Your task to perform on an android device: turn off wifi Image 0: 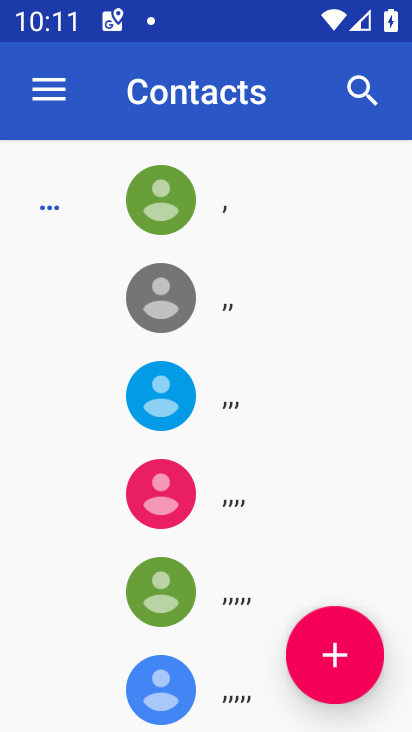
Step 0: press home button
Your task to perform on an android device: turn off wifi Image 1: 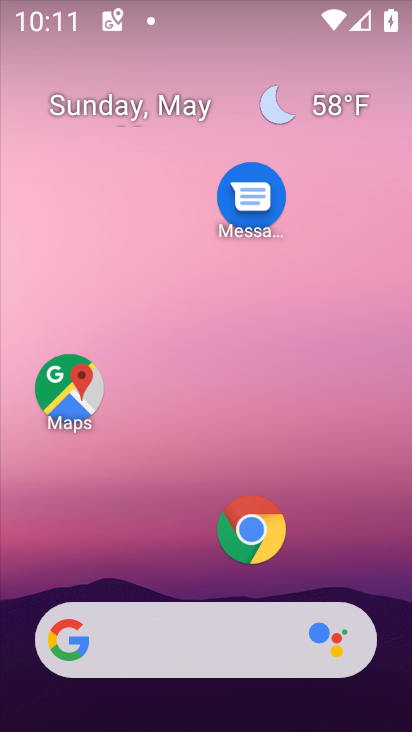
Step 1: drag from (175, 557) to (214, 138)
Your task to perform on an android device: turn off wifi Image 2: 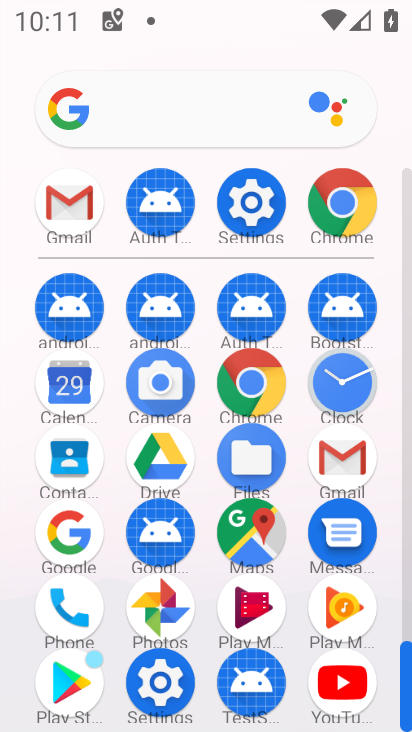
Step 2: click (260, 217)
Your task to perform on an android device: turn off wifi Image 3: 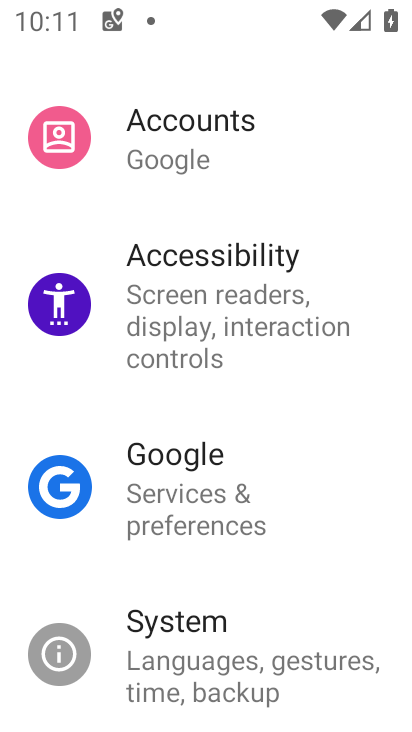
Step 3: drag from (232, 185) to (216, 653)
Your task to perform on an android device: turn off wifi Image 4: 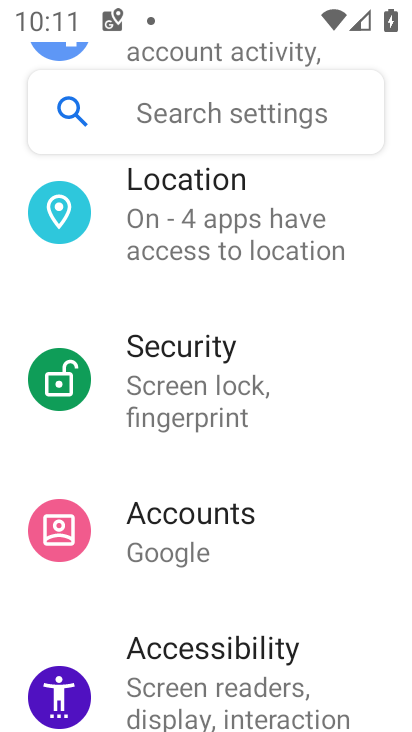
Step 4: drag from (246, 295) to (197, 708)
Your task to perform on an android device: turn off wifi Image 5: 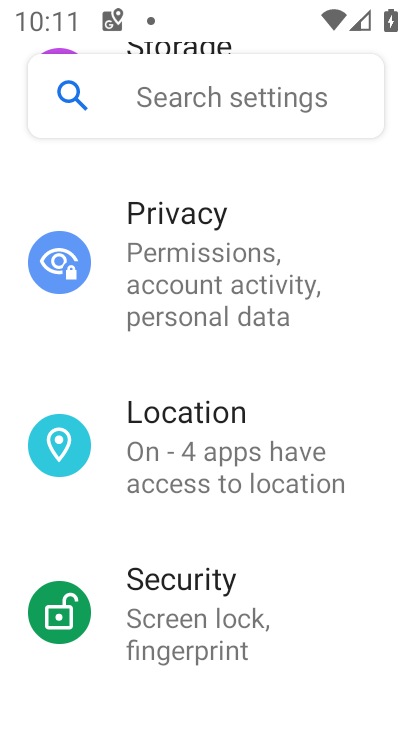
Step 5: drag from (235, 270) to (241, 727)
Your task to perform on an android device: turn off wifi Image 6: 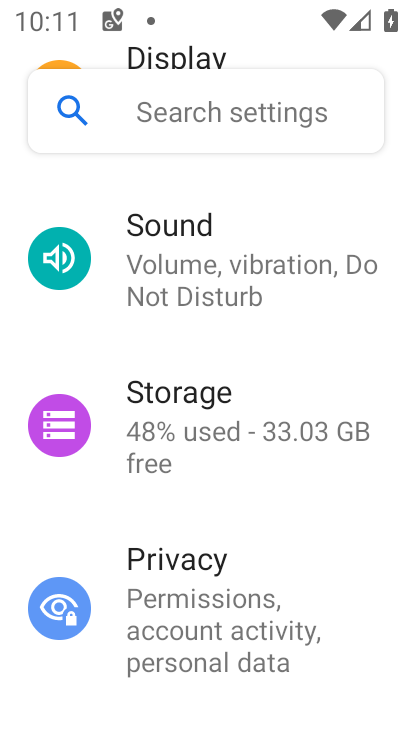
Step 6: drag from (272, 229) to (253, 719)
Your task to perform on an android device: turn off wifi Image 7: 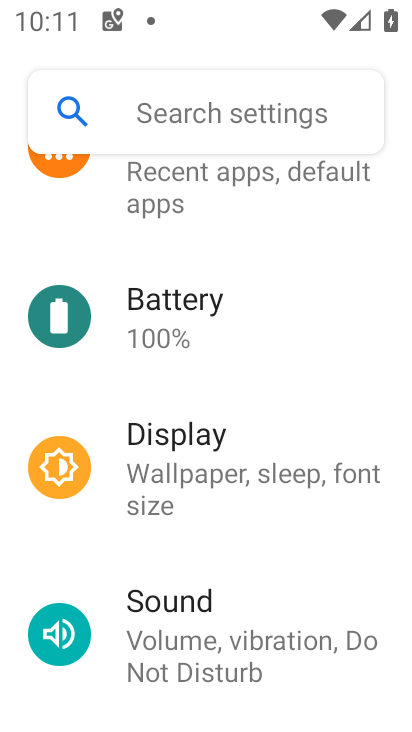
Step 7: drag from (266, 274) to (262, 371)
Your task to perform on an android device: turn off wifi Image 8: 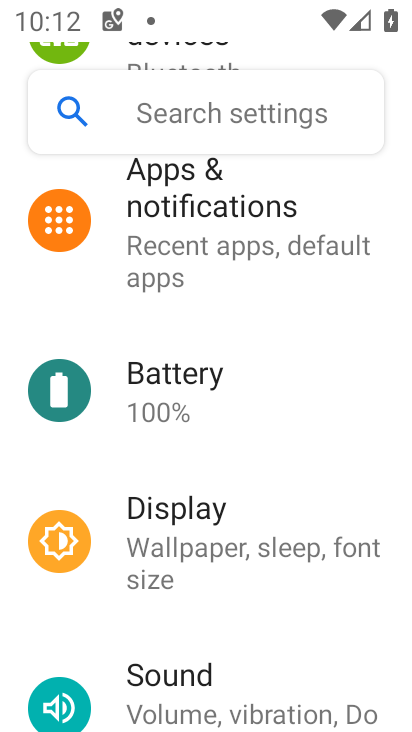
Step 8: drag from (255, 306) to (235, 670)
Your task to perform on an android device: turn off wifi Image 9: 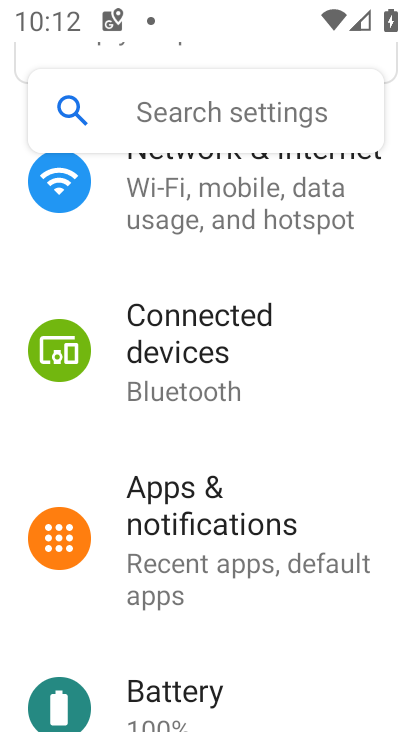
Step 9: drag from (229, 253) to (162, 727)
Your task to perform on an android device: turn off wifi Image 10: 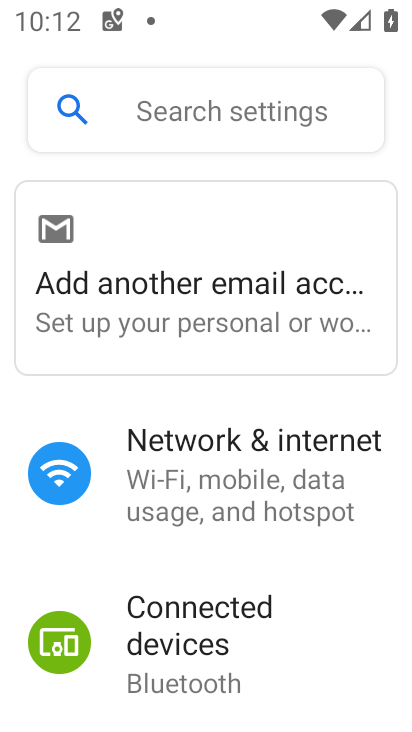
Step 10: click (236, 489)
Your task to perform on an android device: turn off wifi Image 11: 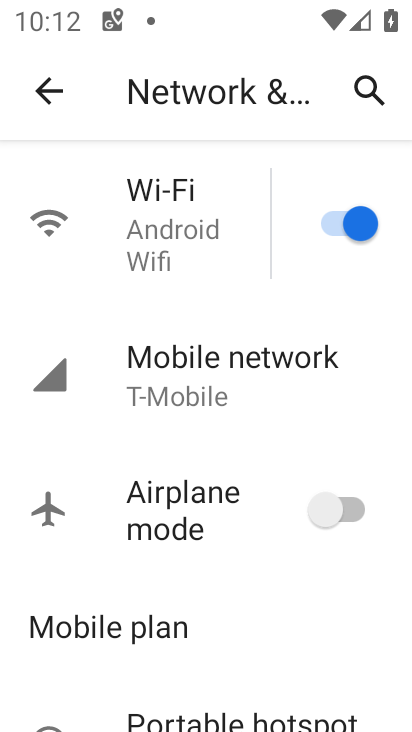
Step 11: click (343, 212)
Your task to perform on an android device: turn off wifi Image 12: 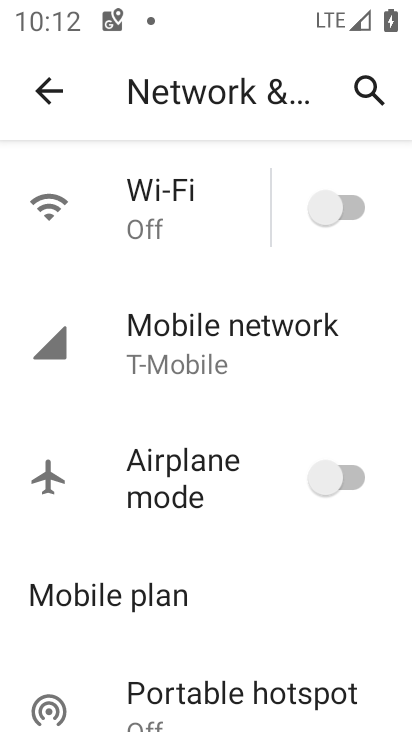
Step 12: task complete